Your task to perform on an android device: toggle translation in the chrome app Image 0: 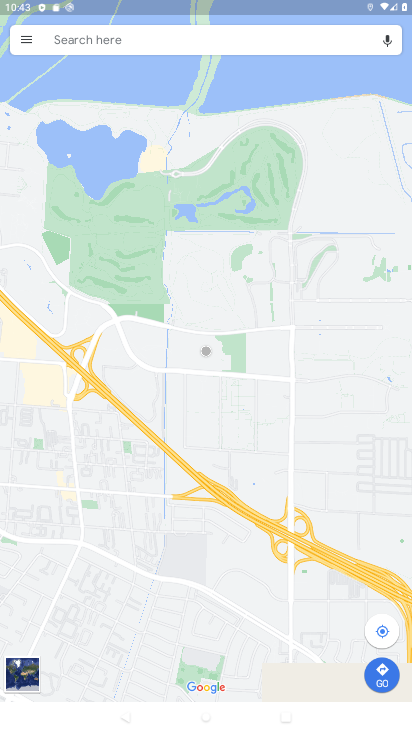
Step 0: press home button
Your task to perform on an android device: toggle translation in the chrome app Image 1: 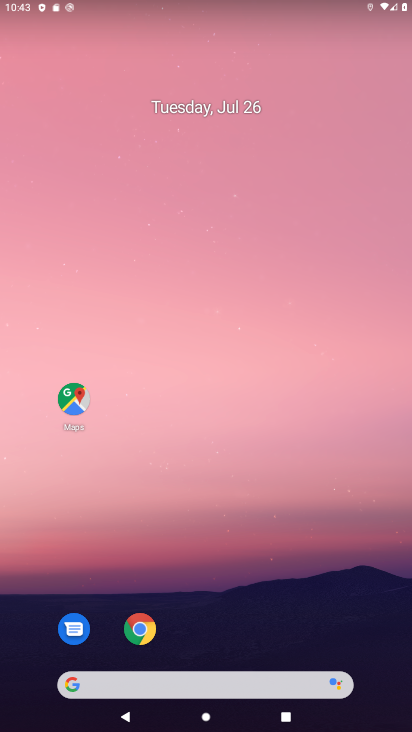
Step 1: drag from (311, 599) to (111, 103)
Your task to perform on an android device: toggle translation in the chrome app Image 2: 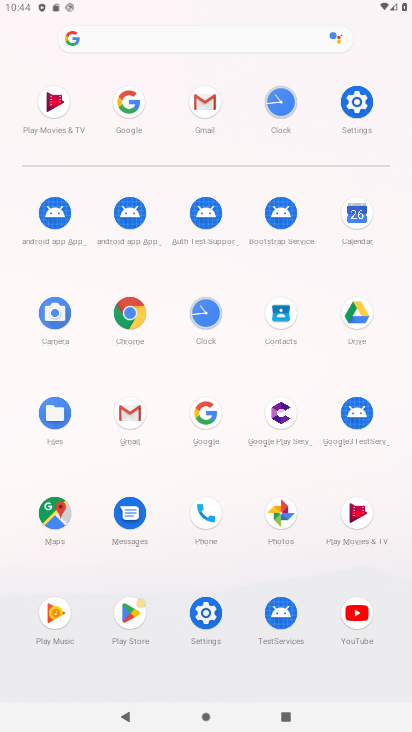
Step 2: click (130, 314)
Your task to perform on an android device: toggle translation in the chrome app Image 3: 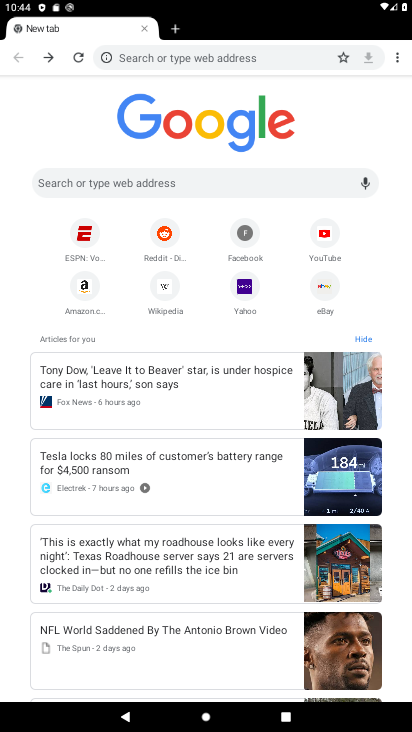
Step 3: click (396, 58)
Your task to perform on an android device: toggle translation in the chrome app Image 4: 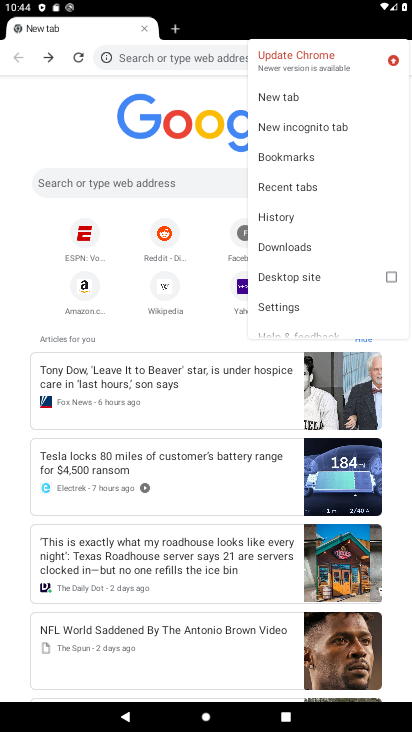
Step 4: click (276, 311)
Your task to perform on an android device: toggle translation in the chrome app Image 5: 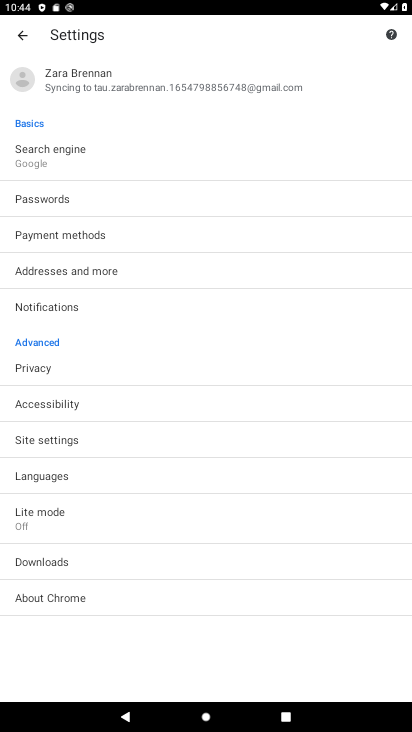
Step 5: click (70, 478)
Your task to perform on an android device: toggle translation in the chrome app Image 6: 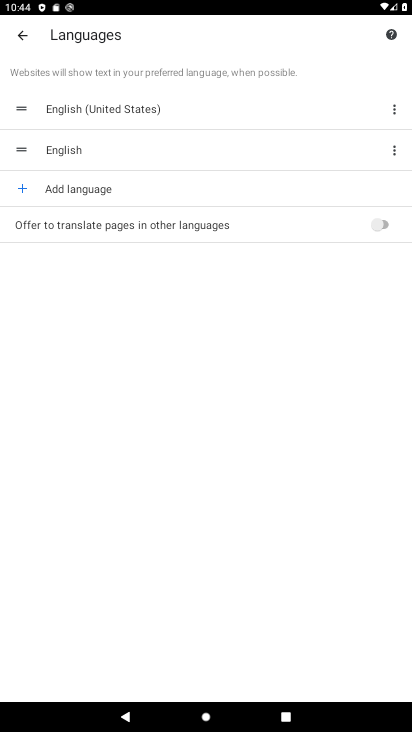
Step 6: click (360, 222)
Your task to perform on an android device: toggle translation in the chrome app Image 7: 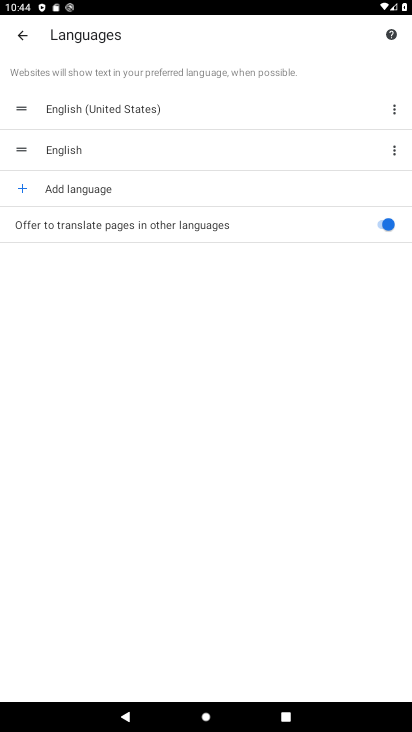
Step 7: task complete